Your task to perform on an android device: toggle priority inbox in the gmail app Image 0: 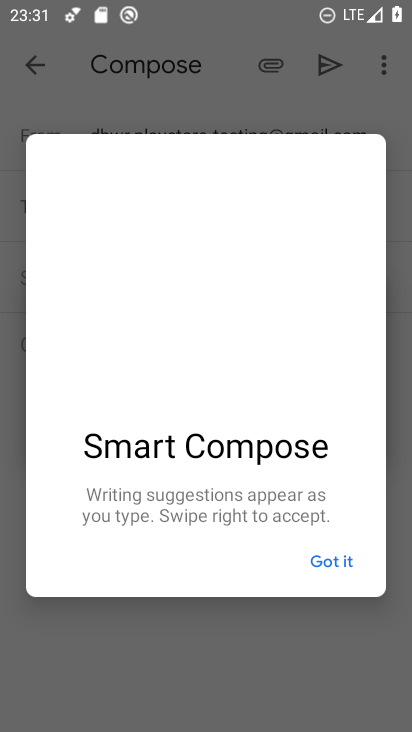
Step 0: click (353, 563)
Your task to perform on an android device: toggle priority inbox in the gmail app Image 1: 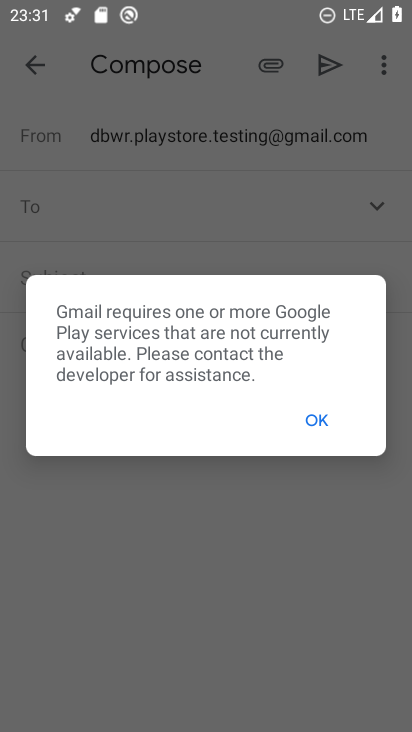
Step 1: click (315, 416)
Your task to perform on an android device: toggle priority inbox in the gmail app Image 2: 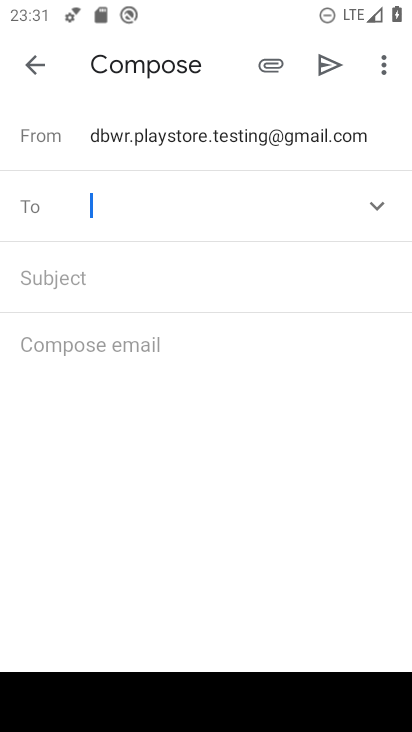
Step 2: click (27, 60)
Your task to perform on an android device: toggle priority inbox in the gmail app Image 3: 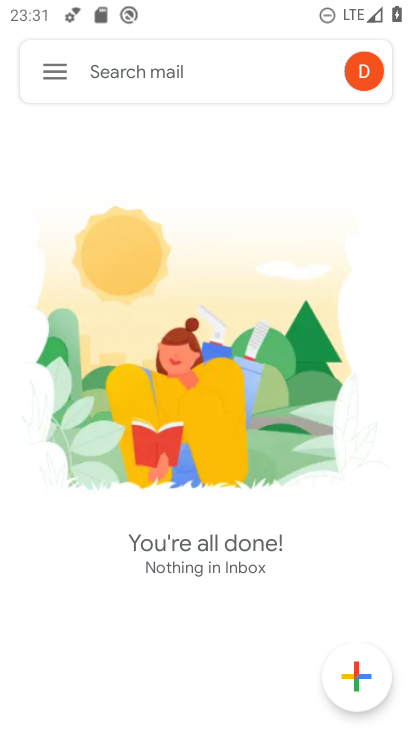
Step 3: click (54, 85)
Your task to perform on an android device: toggle priority inbox in the gmail app Image 4: 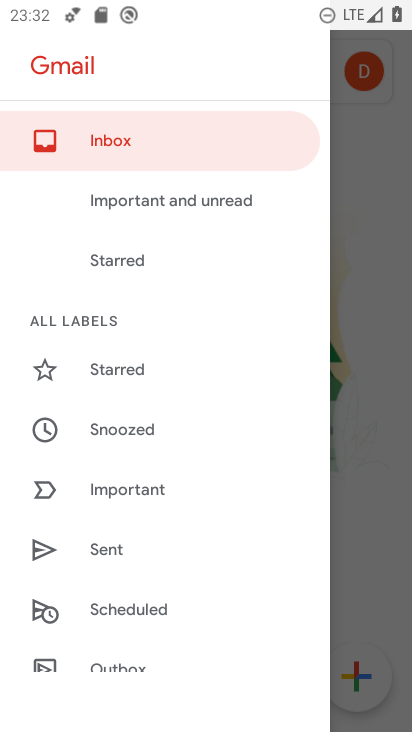
Step 4: drag from (135, 654) to (177, 378)
Your task to perform on an android device: toggle priority inbox in the gmail app Image 5: 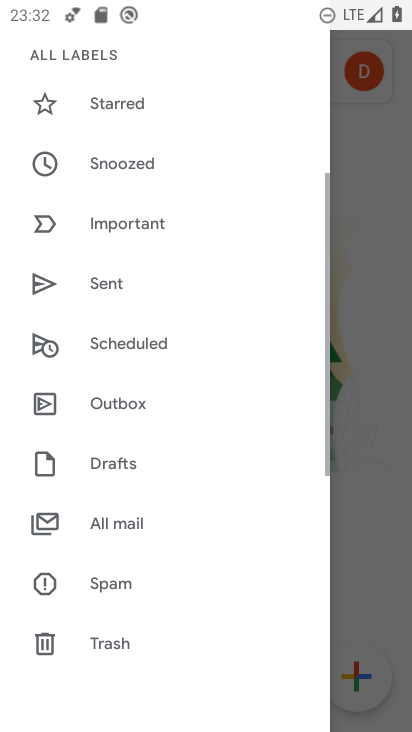
Step 5: drag from (163, 585) to (163, 437)
Your task to perform on an android device: toggle priority inbox in the gmail app Image 6: 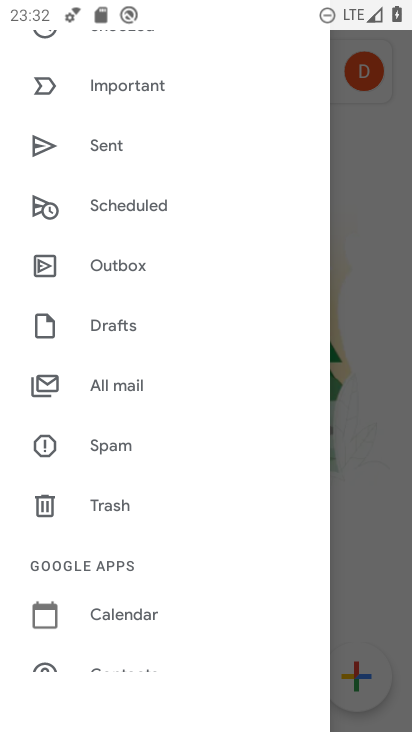
Step 6: drag from (148, 601) to (205, 381)
Your task to perform on an android device: toggle priority inbox in the gmail app Image 7: 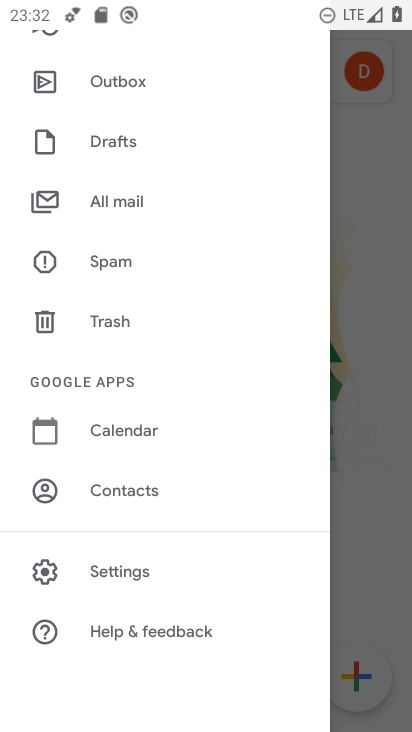
Step 7: click (130, 559)
Your task to perform on an android device: toggle priority inbox in the gmail app Image 8: 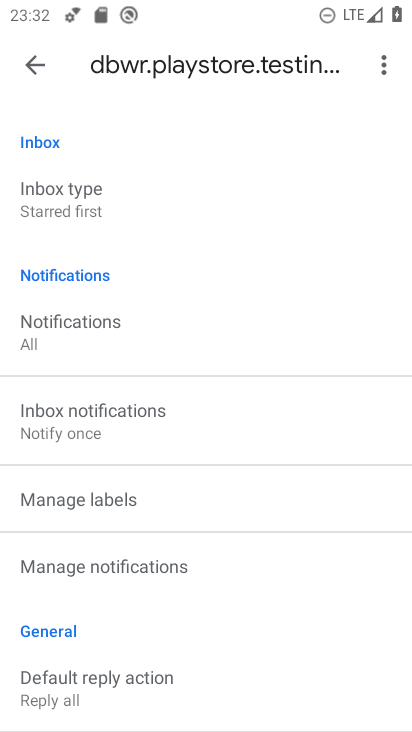
Step 8: click (116, 206)
Your task to perform on an android device: toggle priority inbox in the gmail app Image 9: 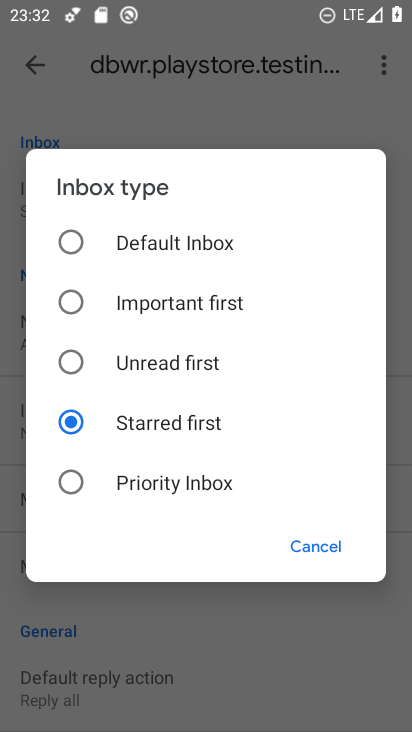
Step 9: click (148, 485)
Your task to perform on an android device: toggle priority inbox in the gmail app Image 10: 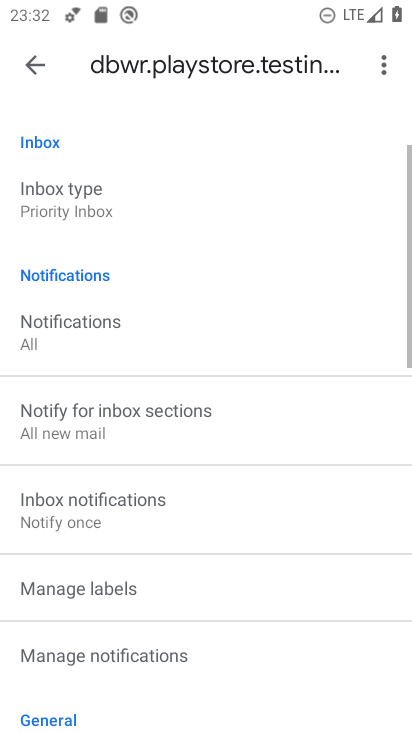
Step 10: task complete